Your task to perform on an android device: Is it going to rain this weekend? Image 0: 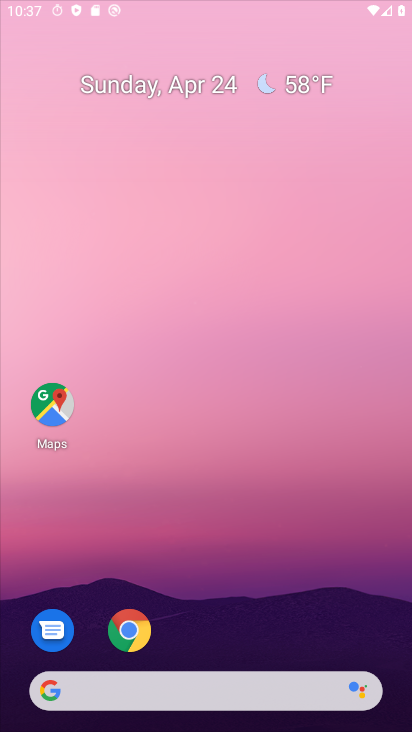
Step 0: click (332, 68)
Your task to perform on an android device: Is it going to rain this weekend? Image 1: 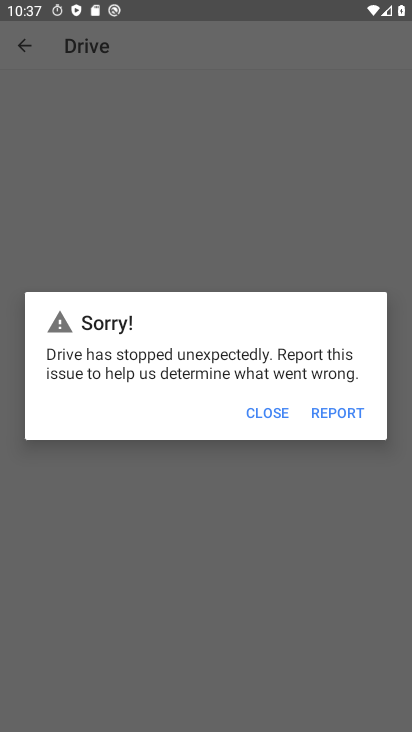
Step 1: click (236, 610)
Your task to perform on an android device: Is it going to rain this weekend? Image 2: 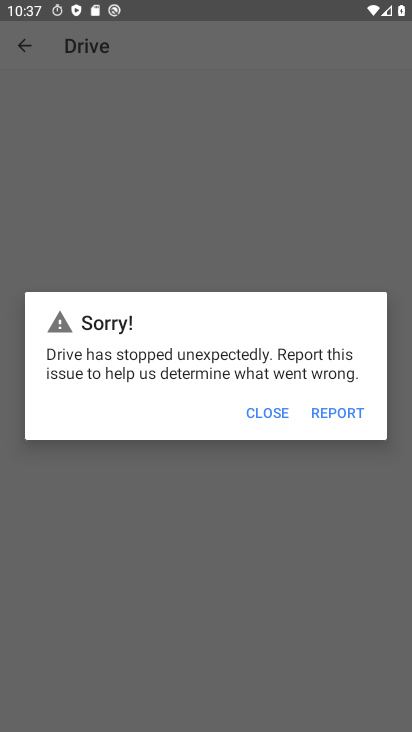
Step 2: drag from (200, 619) to (213, 196)
Your task to perform on an android device: Is it going to rain this weekend? Image 3: 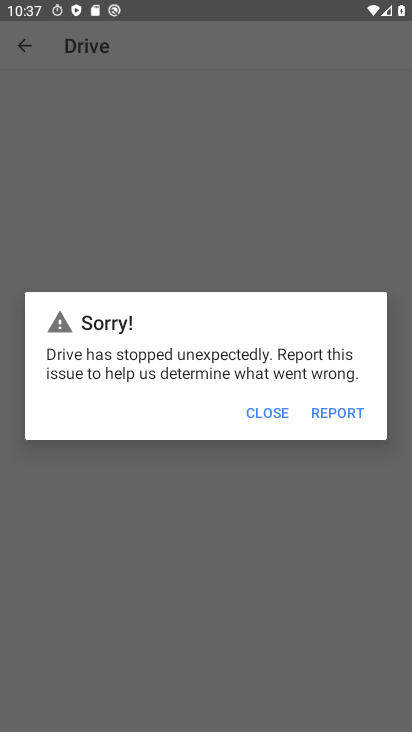
Step 3: click (277, 420)
Your task to perform on an android device: Is it going to rain this weekend? Image 4: 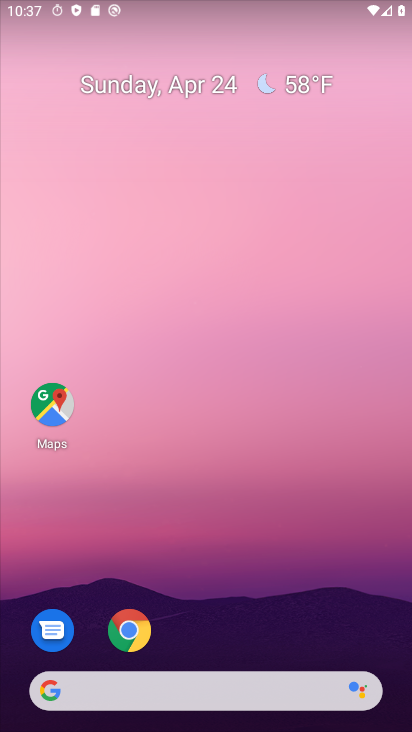
Step 4: drag from (269, 529) to (260, 183)
Your task to perform on an android device: Is it going to rain this weekend? Image 5: 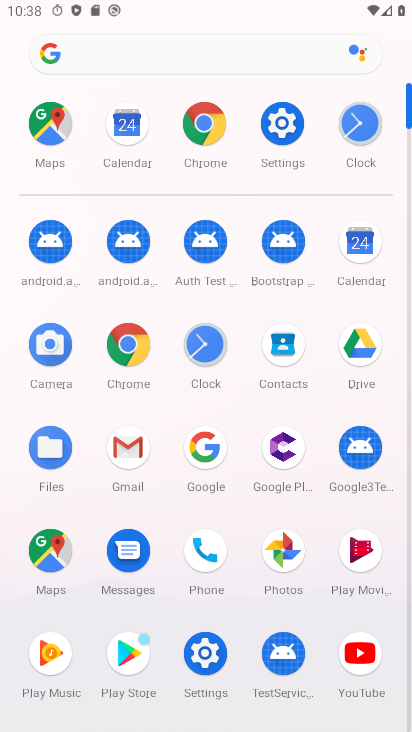
Step 5: click (201, 455)
Your task to perform on an android device: Is it going to rain this weekend? Image 6: 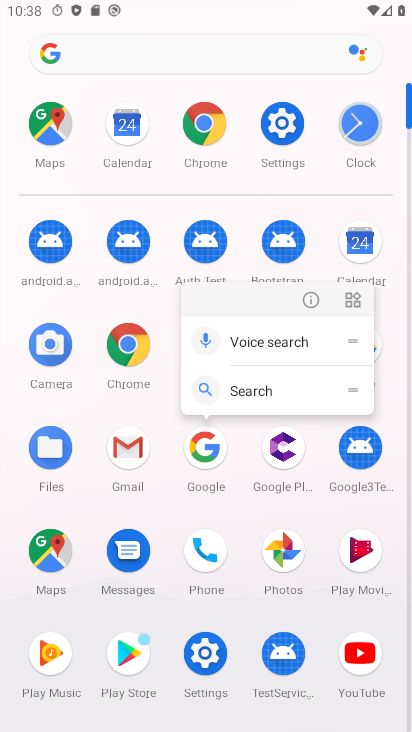
Step 6: click (208, 466)
Your task to perform on an android device: Is it going to rain this weekend? Image 7: 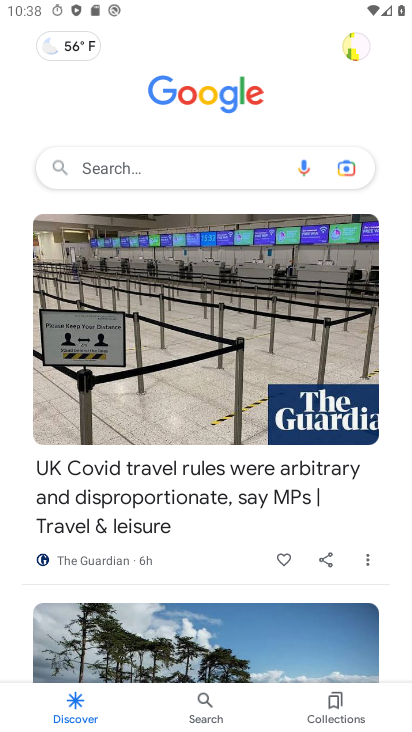
Step 7: click (198, 195)
Your task to perform on an android device: Is it going to rain this weekend? Image 8: 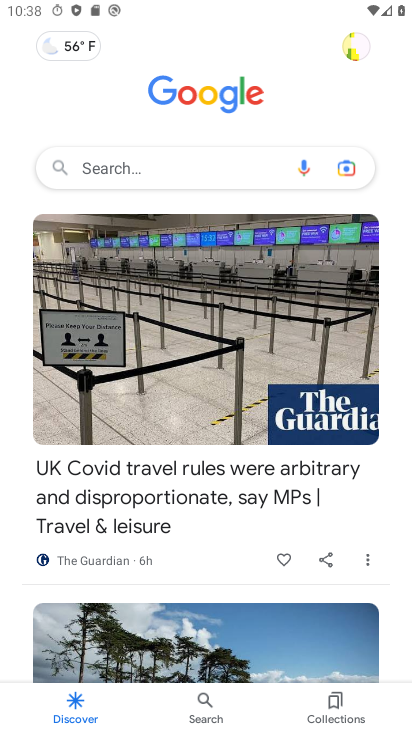
Step 8: click (206, 170)
Your task to perform on an android device: Is it going to rain this weekend? Image 9: 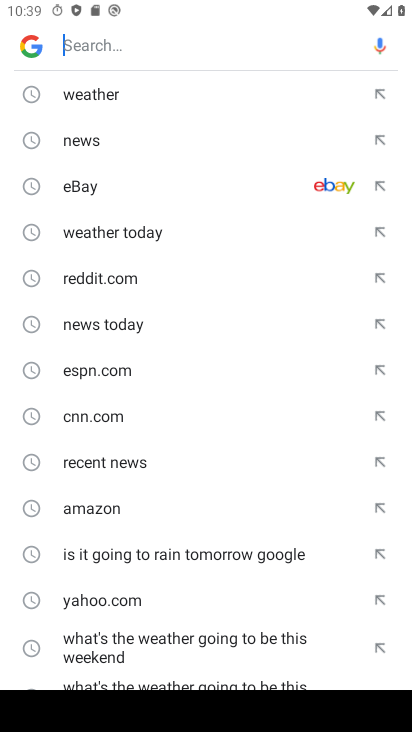
Step 9: click (251, 81)
Your task to perform on an android device: Is it going to rain this weekend? Image 10: 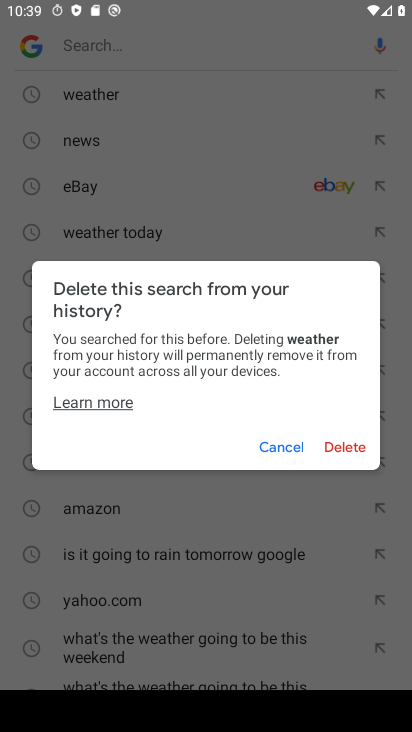
Step 10: click (280, 451)
Your task to perform on an android device: Is it going to rain this weekend? Image 11: 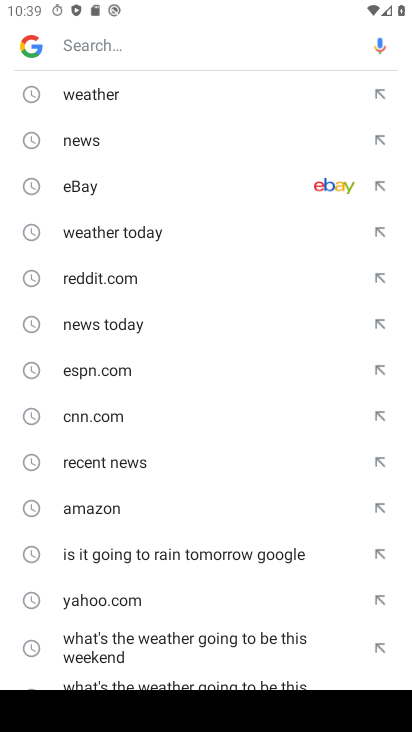
Step 11: click (381, 95)
Your task to perform on an android device: Is it going to rain this weekend? Image 12: 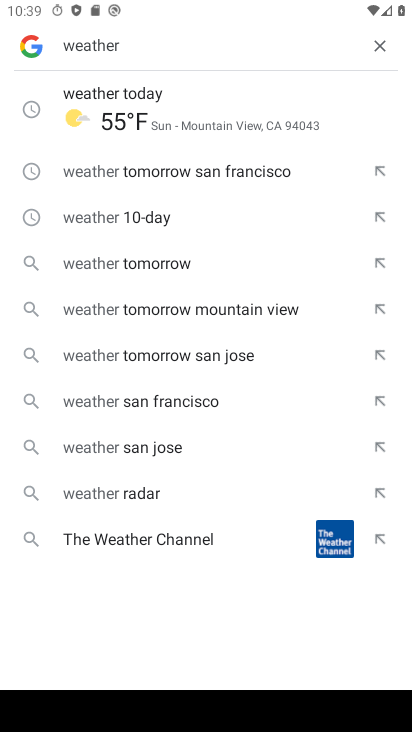
Step 12: click (352, 114)
Your task to perform on an android device: Is it going to rain this weekend? Image 13: 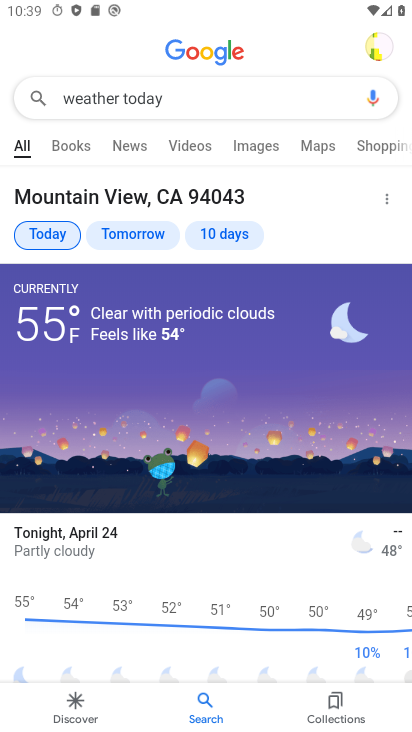
Step 13: click (229, 239)
Your task to perform on an android device: Is it going to rain this weekend? Image 14: 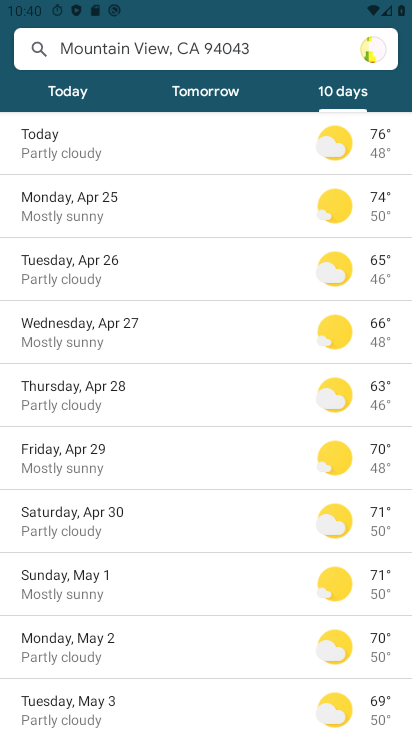
Step 14: click (142, 523)
Your task to perform on an android device: Is it going to rain this weekend? Image 15: 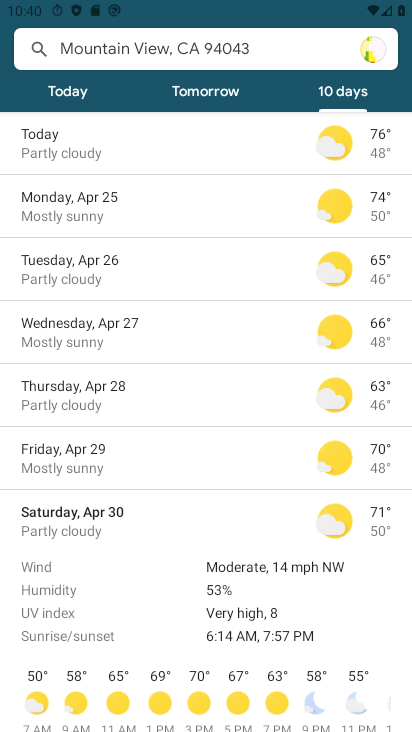
Step 15: task complete